Your task to perform on an android device: Check the weather Image 0: 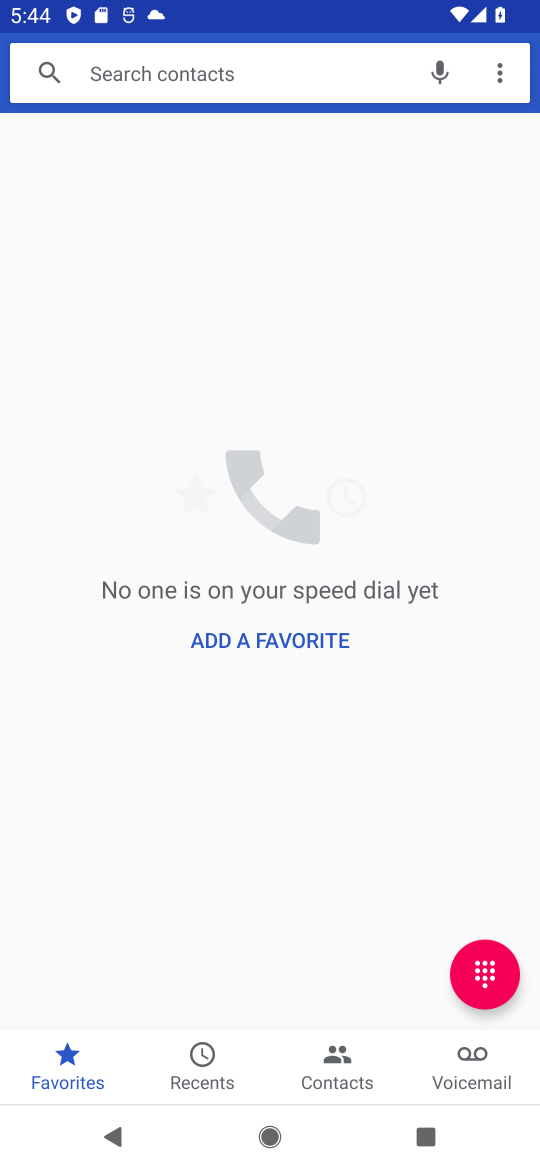
Step 0: press home button
Your task to perform on an android device: Check the weather Image 1: 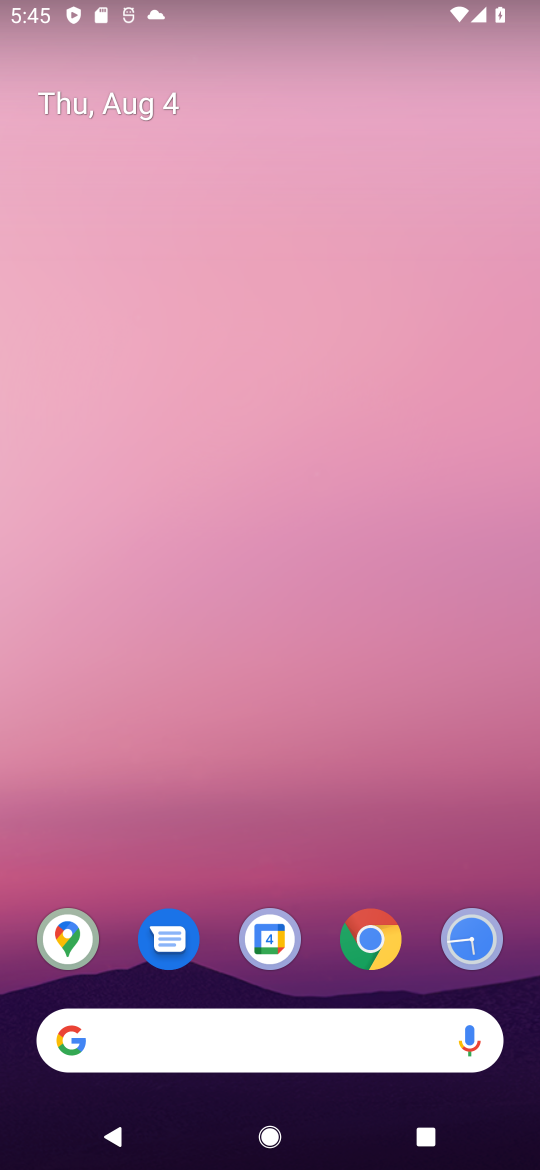
Step 1: drag from (264, 998) to (290, 441)
Your task to perform on an android device: Check the weather Image 2: 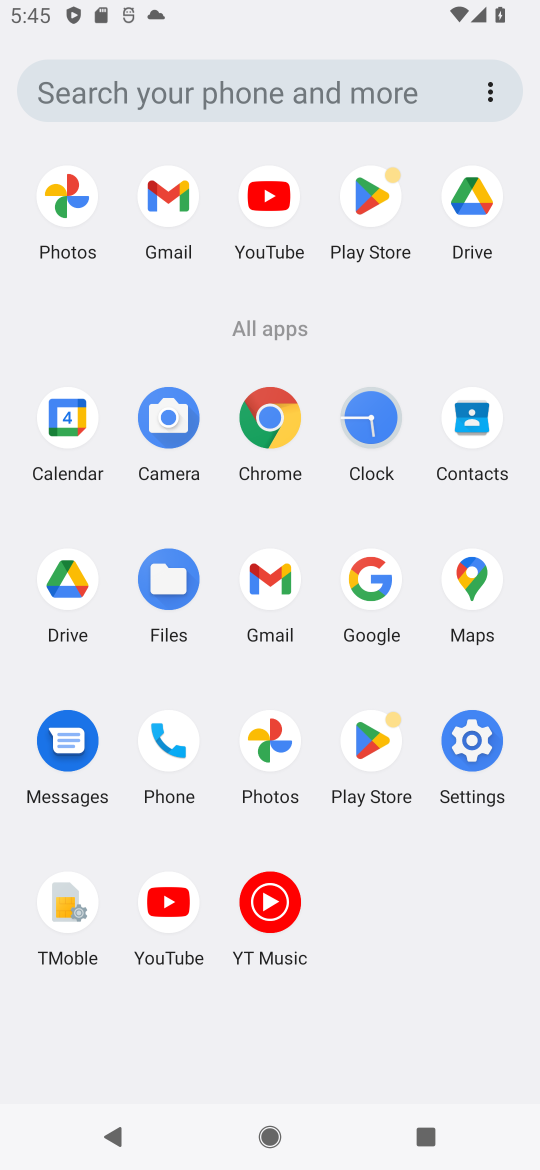
Step 2: click (361, 591)
Your task to perform on an android device: Check the weather Image 3: 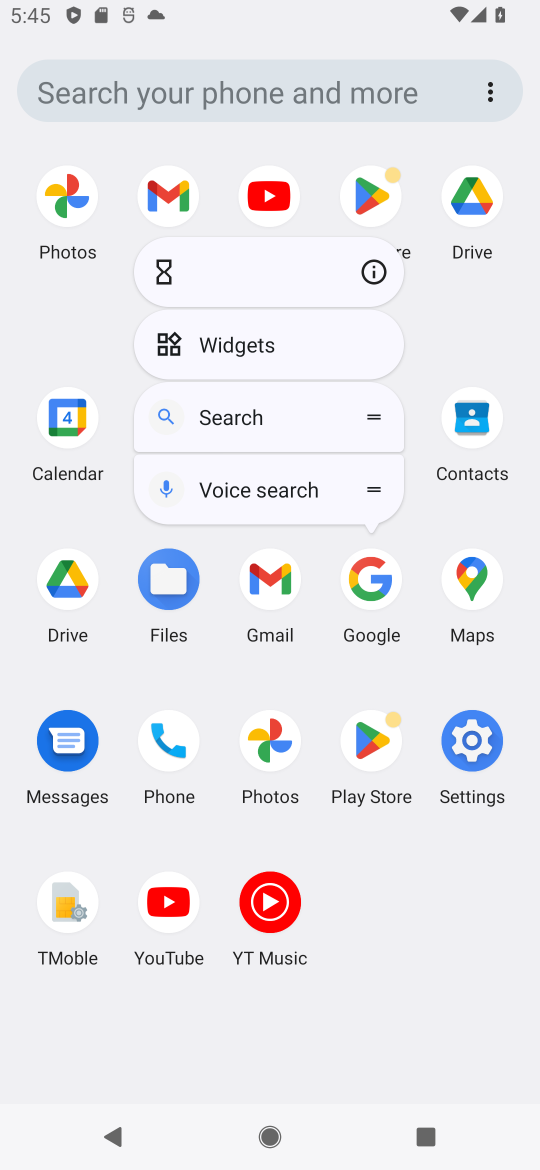
Step 3: click (367, 584)
Your task to perform on an android device: Check the weather Image 4: 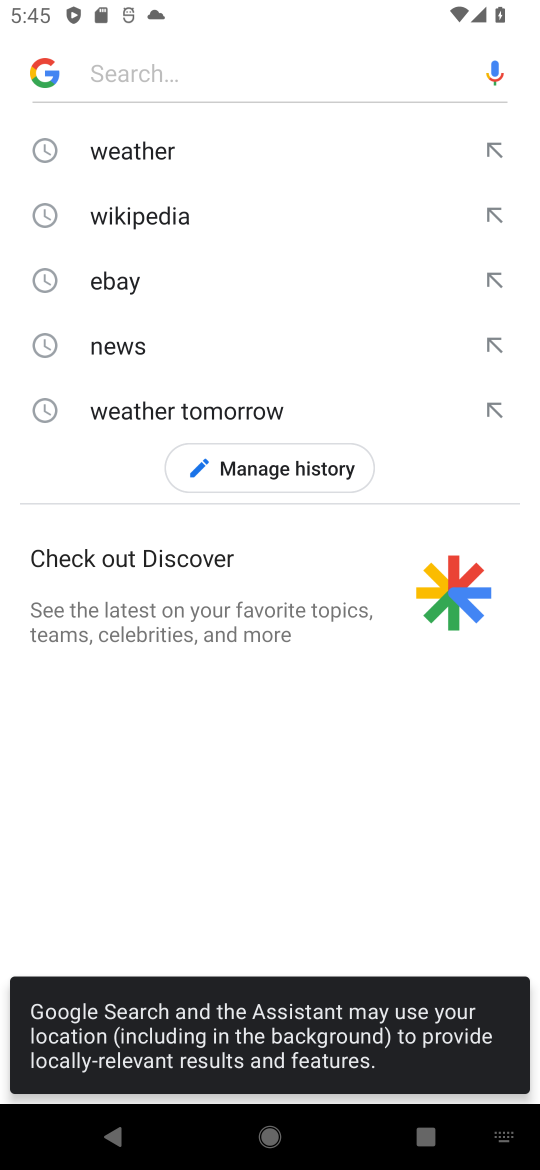
Step 4: click (227, 79)
Your task to perform on an android device: Check the weather Image 5: 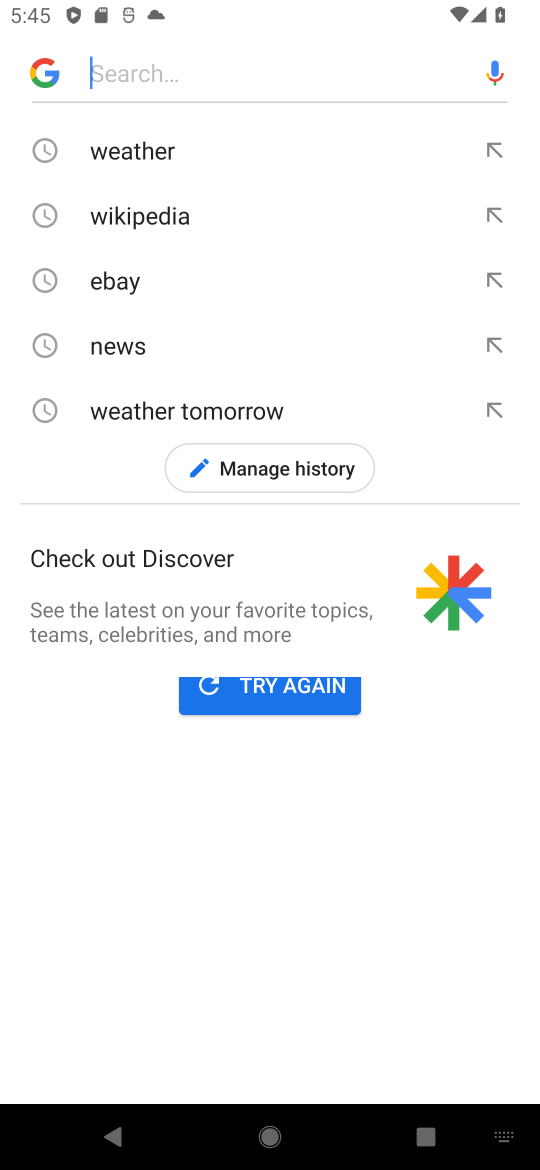
Step 5: click (153, 50)
Your task to perform on an android device: Check the weather Image 6: 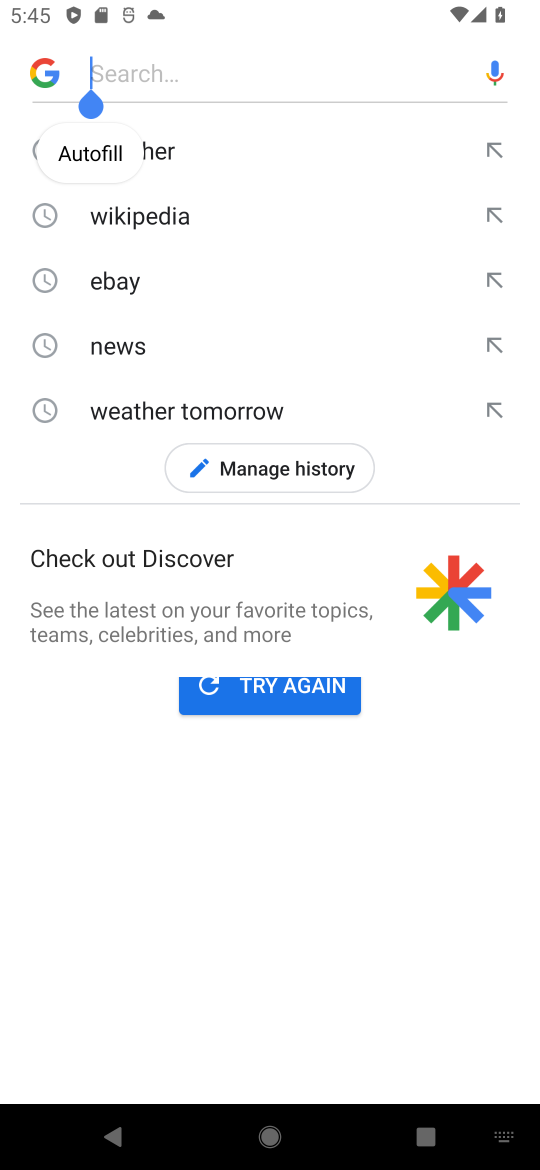
Step 6: click (153, 73)
Your task to perform on an android device: Check the weather Image 7: 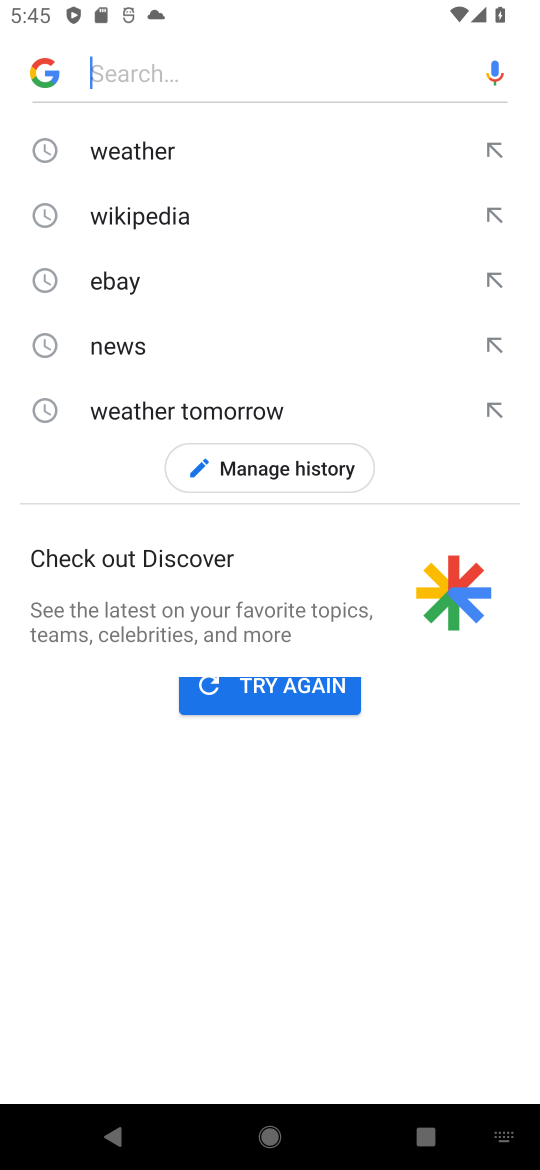
Step 7: click (132, 139)
Your task to perform on an android device: Check the weather Image 8: 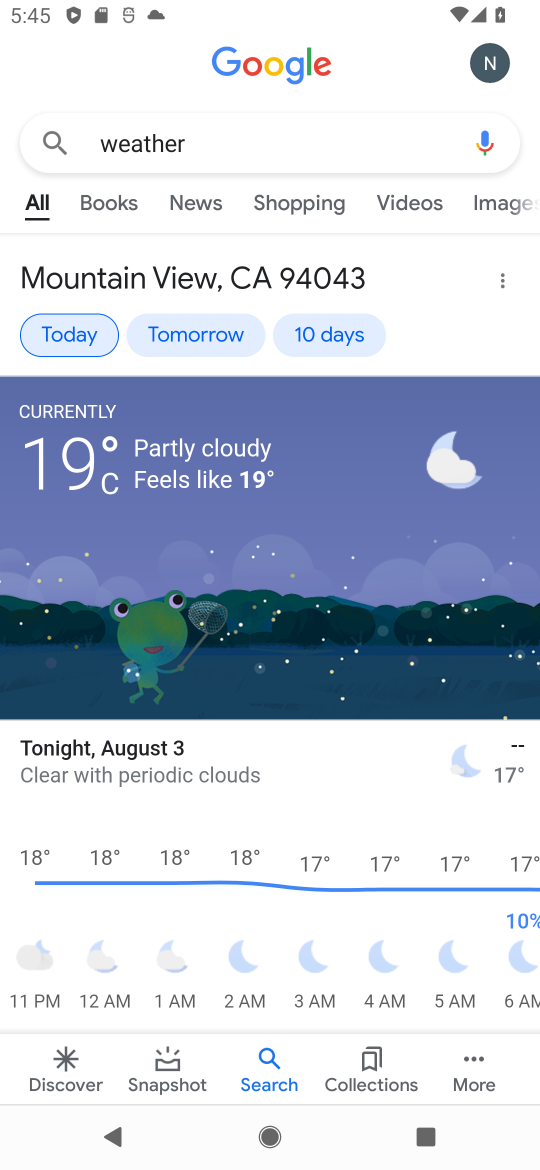
Step 8: task complete